Your task to perform on an android device: Open Google Chrome and click the shortcut for Amazon.com Image 0: 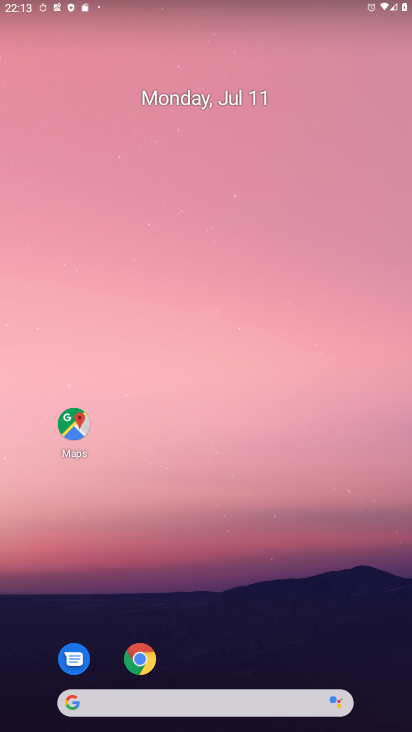
Step 0: drag from (209, 645) to (261, 260)
Your task to perform on an android device: Open Google Chrome and click the shortcut for Amazon.com Image 1: 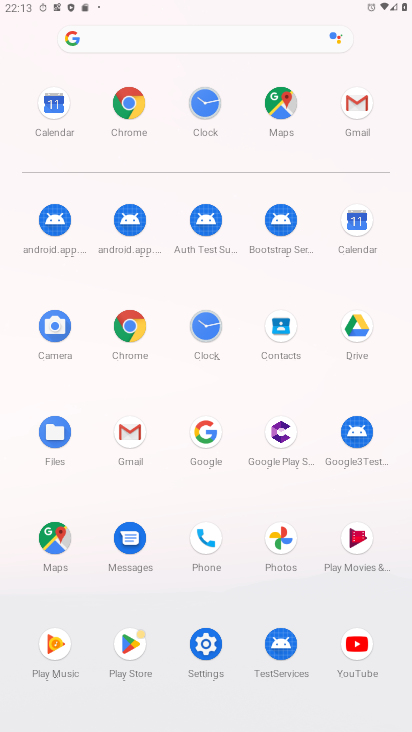
Step 1: drag from (247, 655) to (248, 542)
Your task to perform on an android device: Open Google Chrome and click the shortcut for Amazon.com Image 2: 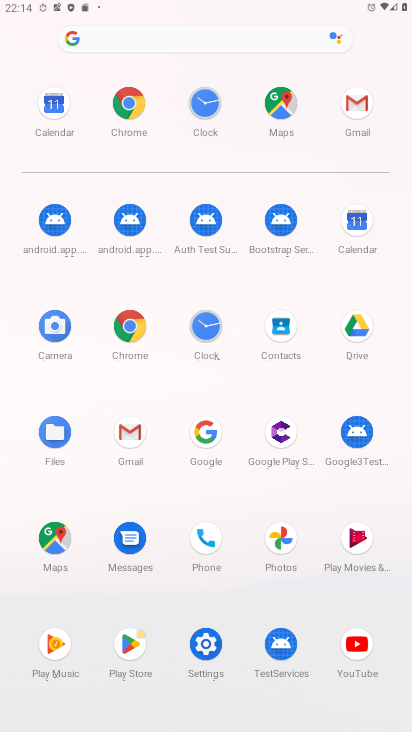
Step 2: drag from (260, 603) to (260, 76)
Your task to perform on an android device: Open Google Chrome and click the shortcut for Amazon.com Image 3: 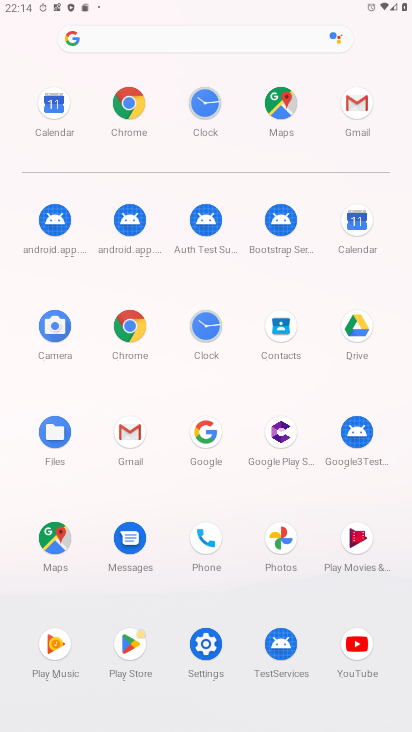
Step 3: click (131, 323)
Your task to perform on an android device: Open Google Chrome and click the shortcut for Amazon.com Image 4: 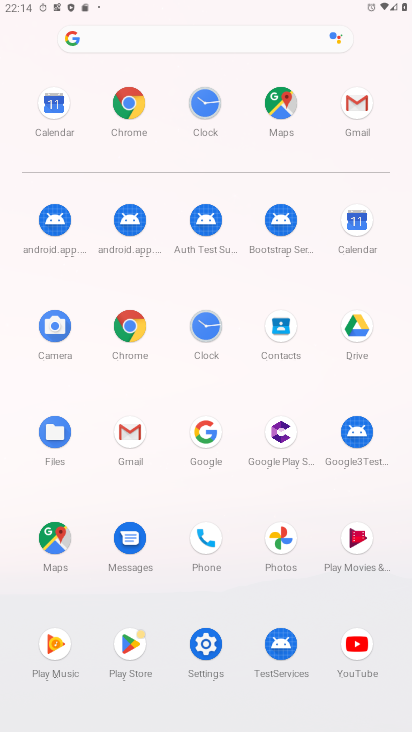
Step 4: click (131, 323)
Your task to perform on an android device: Open Google Chrome and click the shortcut for Amazon.com Image 5: 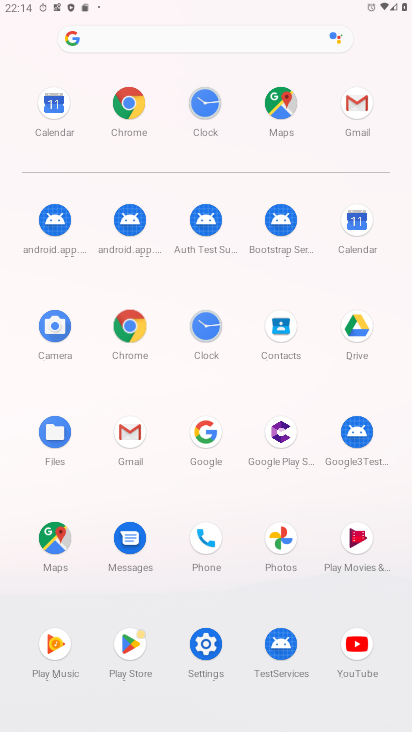
Step 5: click (131, 323)
Your task to perform on an android device: Open Google Chrome and click the shortcut for Amazon.com Image 6: 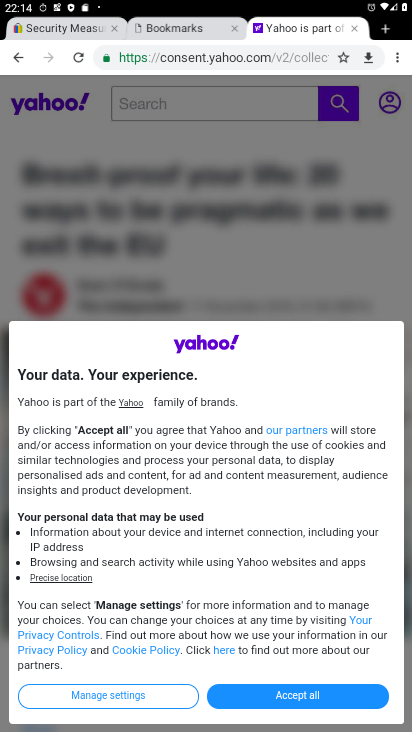
Step 6: click (210, 59)
Your task to perform on an android device: Open Google Chrome and click the shortcut for Amazon.com Image 7: 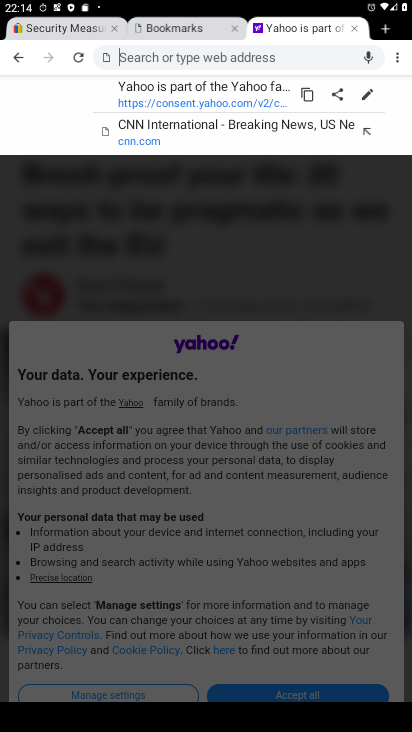
Step 7: click (383, 34)
Your task to perform on an android device: Open Google Chrome and click the shortcut for Amazon.com Image 8: 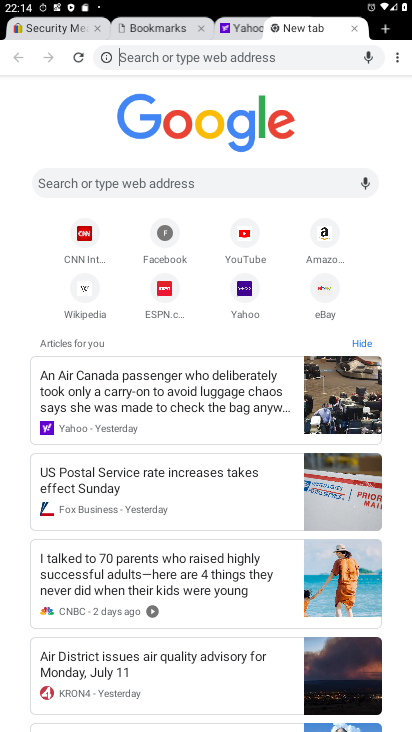
Step 8: click (328, 235)
Your task to perform on an android device: Open Google Chrome and click the shortcut for Amazon.com Image 9: 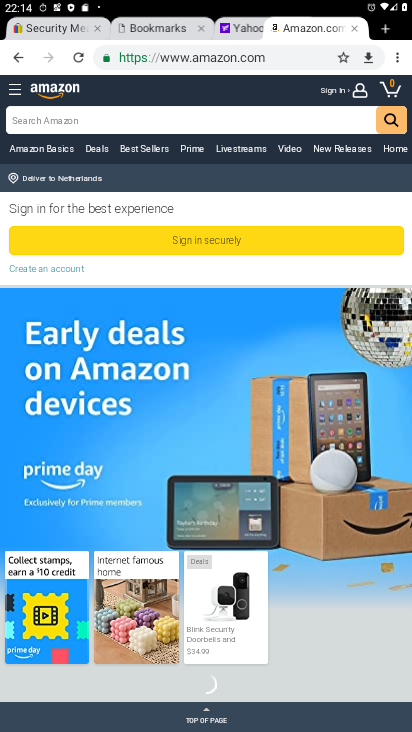
Step 9: task complete